Your task to perform on an android device: Go to battery settings Image 0: 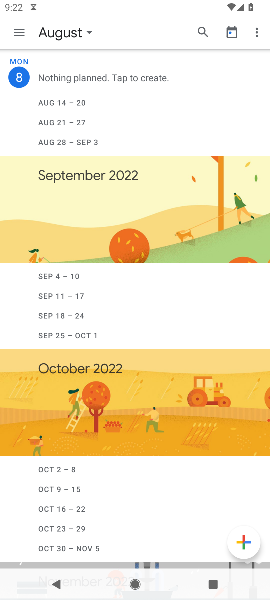
Step 0: press home button
Your task to perform on an android device: Go to battery settings Image 1: 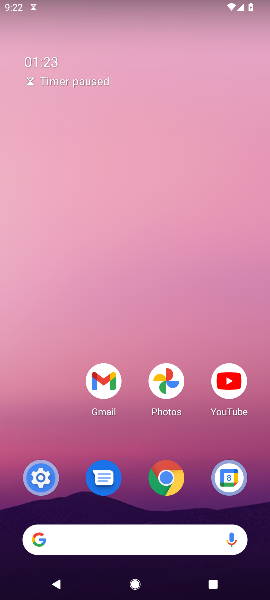
Step 1: drag from (113, 533) to (165, 170)
Your task to perform on an android device: Go to battery settings Image 2: 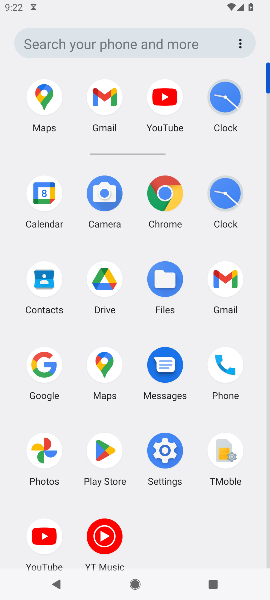
Step 2: click (160, 452)
Your task to perform on an android device: Go to battery settings Image 3: 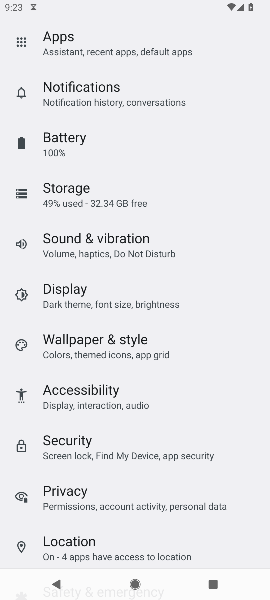
Step 3: click (77, 135)
Your task to perform on an android device: Go to battery settings Image 4: 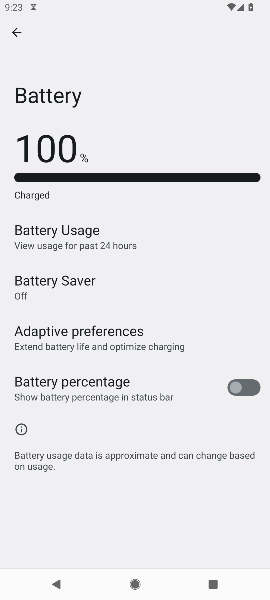
Step 4: task complete